Your task to perform on an android device: Go to privacy settings Image 0: 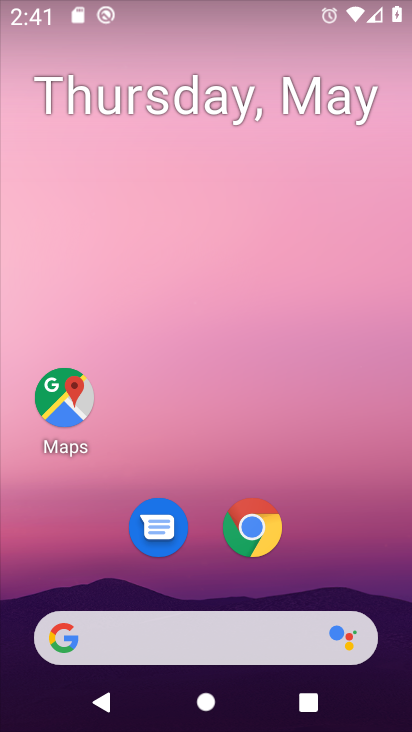
Step 0: drag from (392, 618) to (330, 89)
Your task to perform on an android device: Go to privacy settings Image 1: 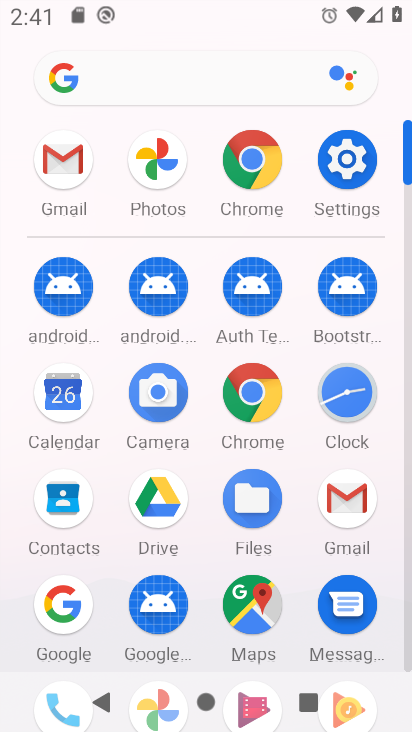
Step 1: click (411, 629)
Your task to perform on an android device: Go to privacy settings Image 2: 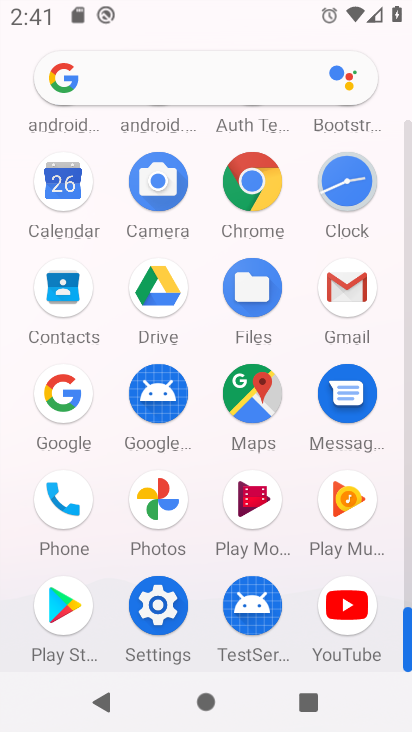
Step 2: click (156, 625)
Your task to perform on an android device: Go to privacy settings Image 3: 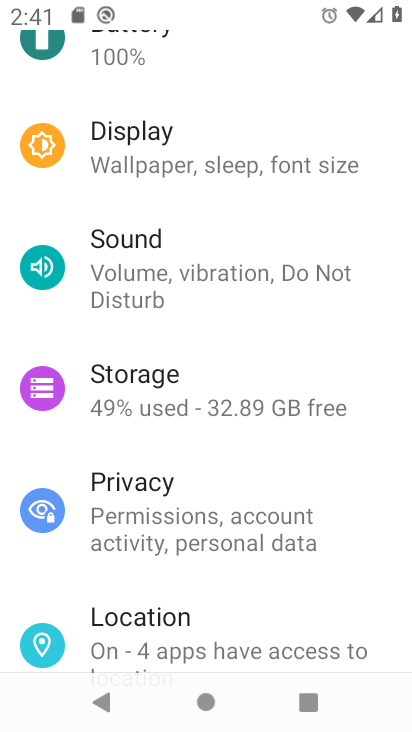
Step 3: drag from (233, 157) to (229, 506)
Your task to perform on an android device: Go to privacy settings Image 4: 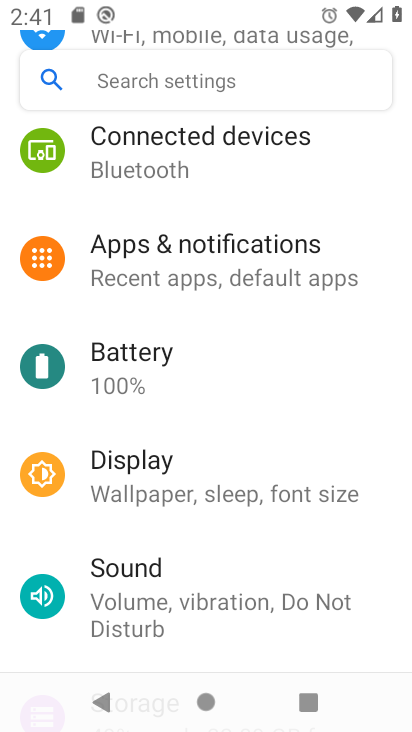
Step 4: drag from (164, 210) to (195, 576)
Your task to perform on an android device: Go to privacy settings Image 5: 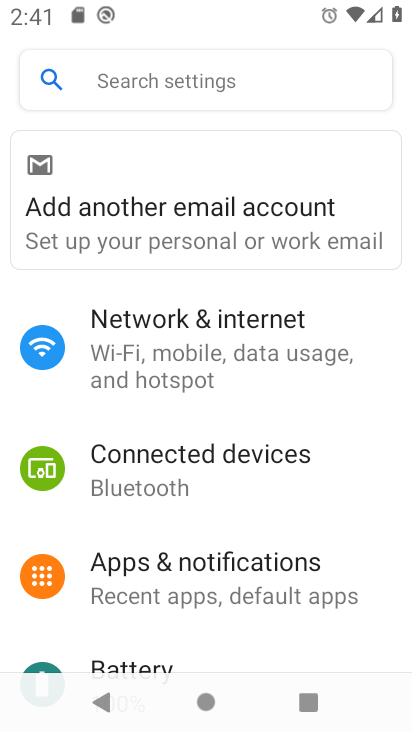
Step 5: drag from (212, 564) to (225, 142)
Your task to perform on an android device: Go to privacy settings Image 6: 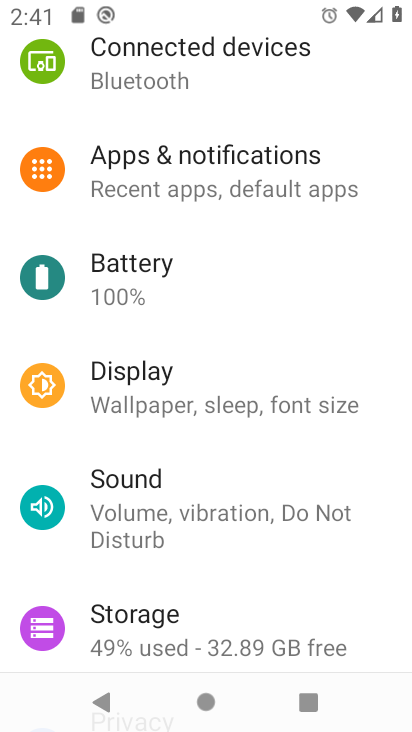
Step 6: drag from (247, 550) to (236, 247)
Your task to perform on an android device: Go to privacy settings Image 7: 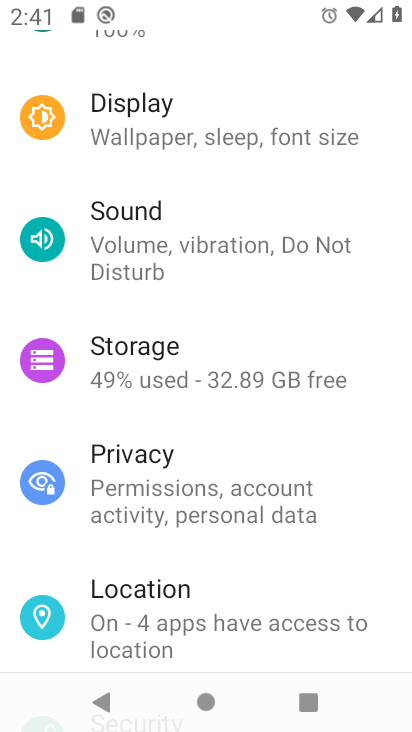
Step 7: click (213, 492)
Your task to perform on an android device: Go to privacy settings Image 8: 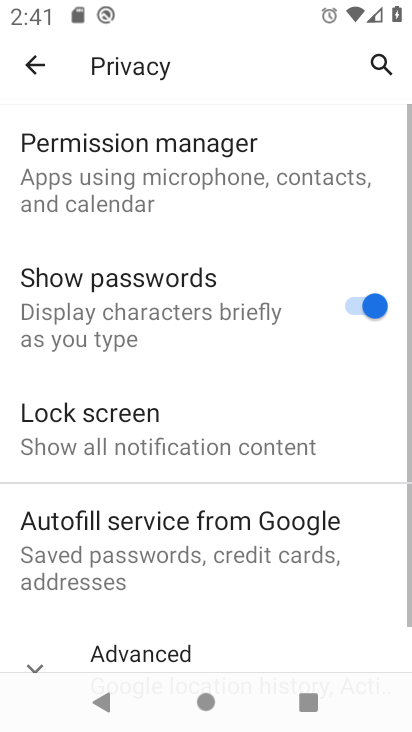
Step 8: task complete